Your task to perform on an android device: Check the weather Image 0: 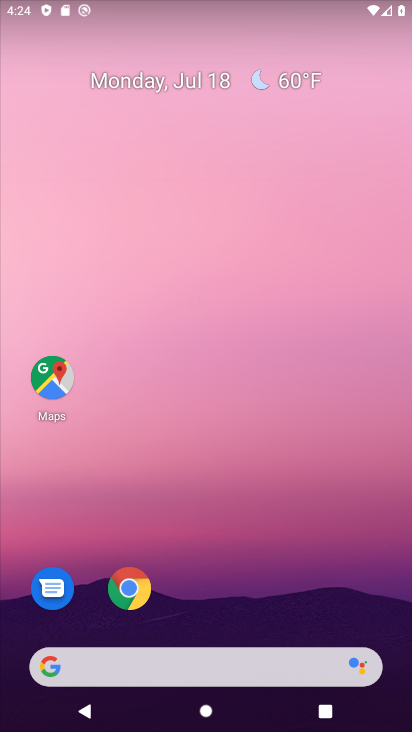
Step 0: press home button
Your task to perform on an android device: Check the weather Image 1: 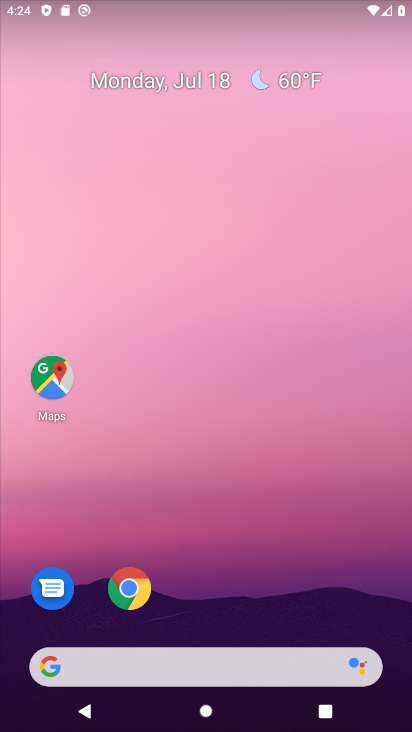
Step 1: click (177, 663)
Your task to perform on an android device: Check the weather Image 2: 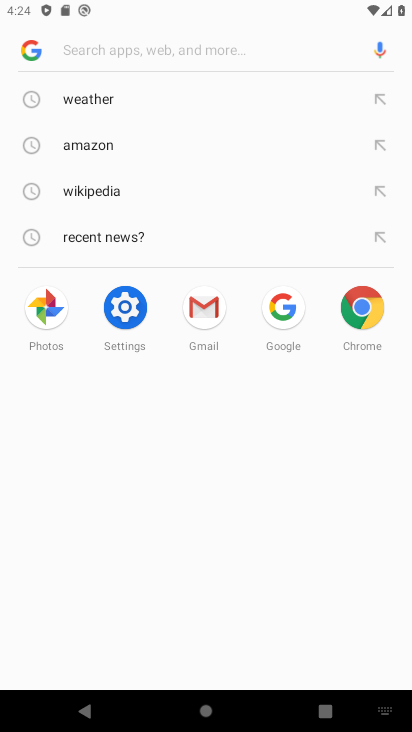
Step 2: click (125, 93)
Your task to perform on an android device: Check the weather Image 3: 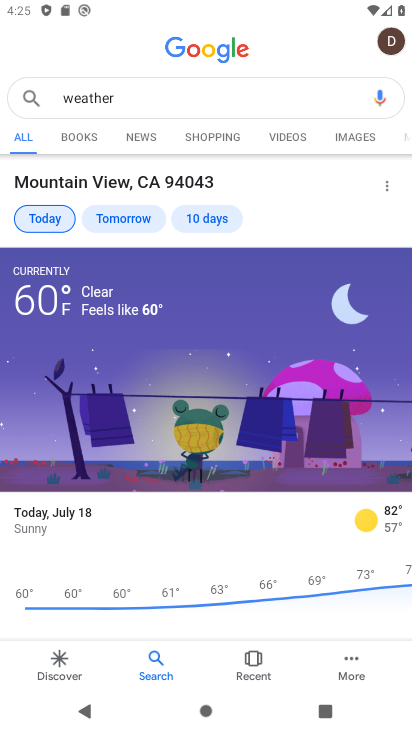
Step 3: task complete